Your task to perform on an android device: What's on my calendar tomorrow? Image 0: 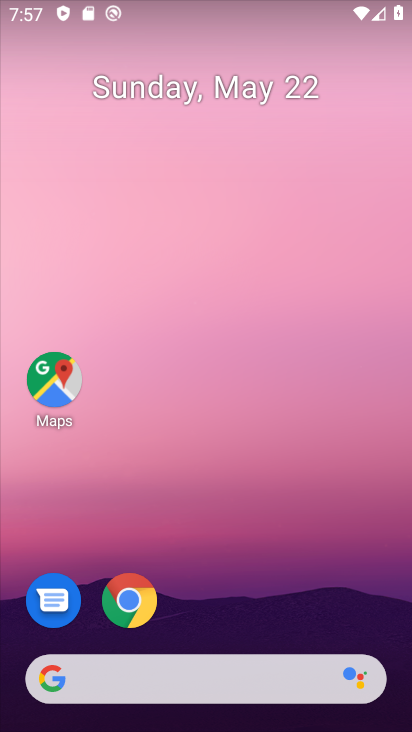
Step 0: drag from (197, 659) to (208, 322)
Your task to perform on an android device: What's on my calendar tomorrow? Image 1: 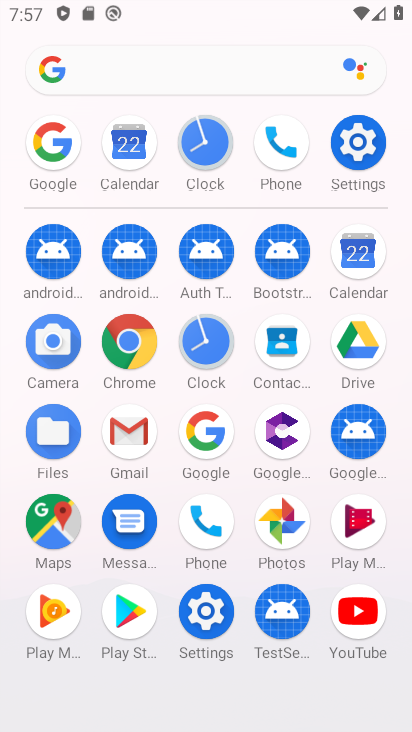
Step 1: click (363, 256)
Your task to perform on an android device: What's on my calendar tomorrow? Image 2: 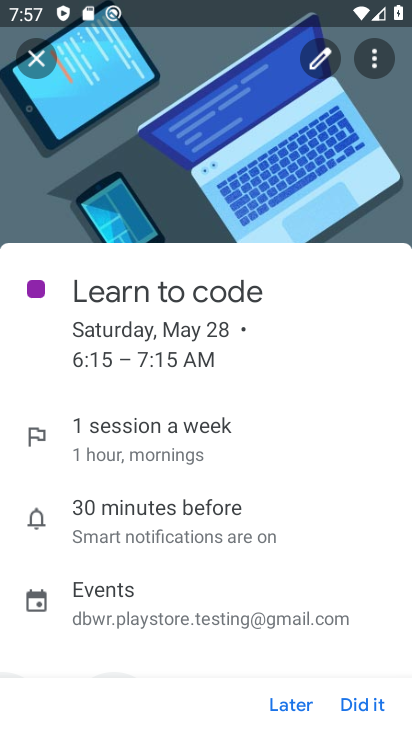
Step 2: click (36, 63)
Your task to perform on an android device: What's on my calendar tomorrow? Image 3: 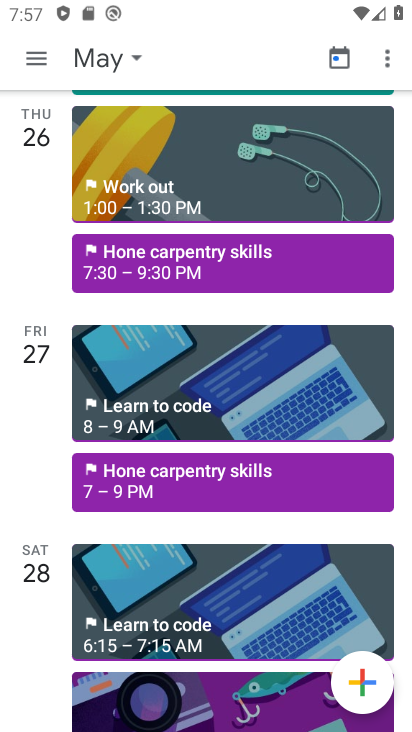
Step 3: click (136, 54)
Your task to perform on an android device: What's on my calendar tomorrow? Image 4: 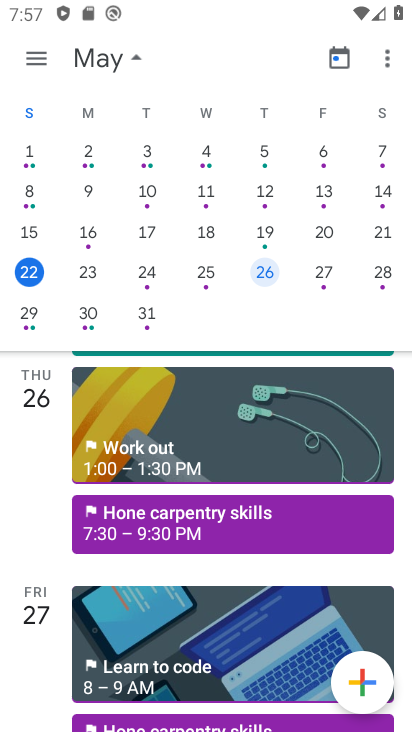
Step 4: click (88, 272)
Your task to perform on an android device: What's on my calendar tomorrow? Image 5: 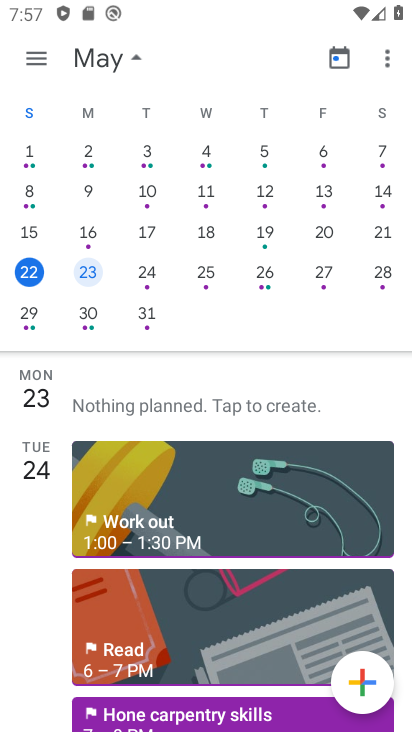
Step 5: click (120, 406)
Your task to perform on an android device: What's on my calendar tomorrow? Image 6: 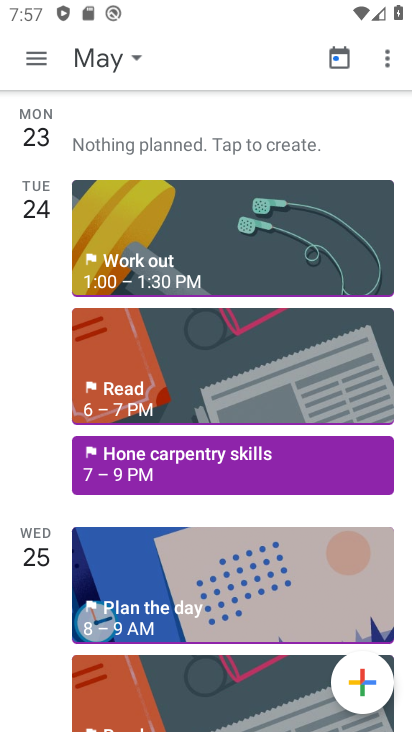
Step 6: task complete